Your task to perform on an android device: Open calendar and show me the fourth week of next month Image 0: 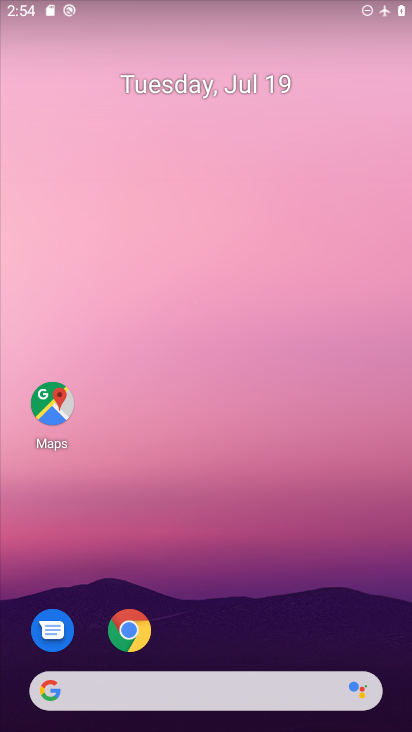
Step 0: drag from (386, 651) to (340, 235)
Your task to perform on an android device: Open calendar and show me the fourth week of next month Image 1: 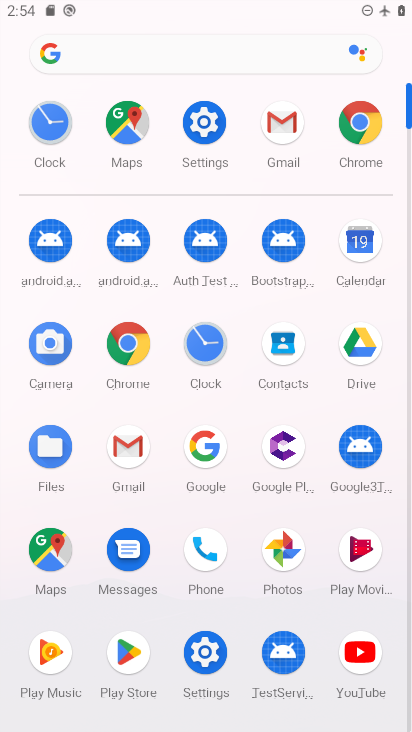
Step 1: click (357, 243)
Your task to perform on an android device: Open calendar and show me the fourth week of next month Image 2: 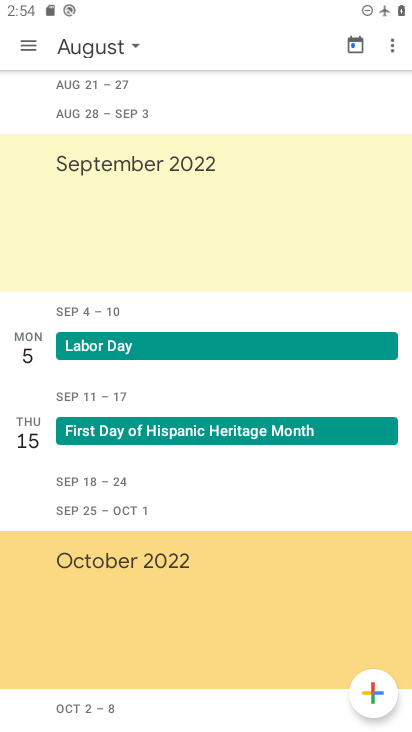
Step 2: click (22, 39)
Your task to perform on an android device: Open calendar and show me the fourth week of next month Image 3: 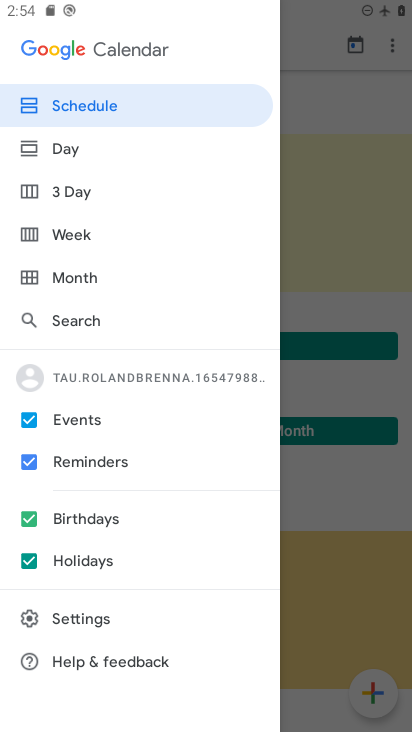
Step 3: click (69, 229)
Your task to perform on an android device: Open calendar and show me the fourth week of next month Image 4: 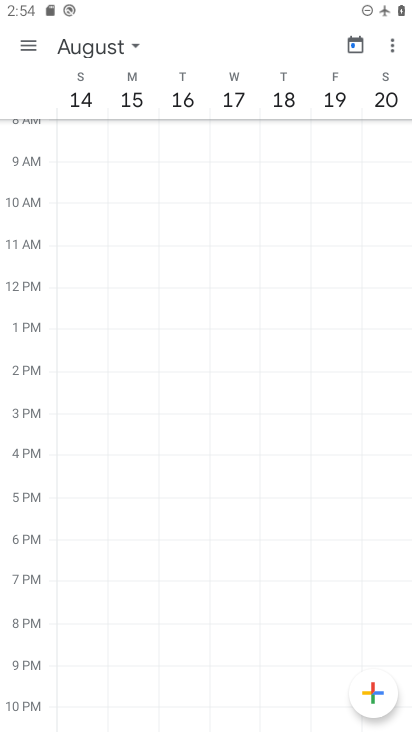
Step 4: click (134, 43)
Your task to perform on an android device: Open calendar and show me the fourth week of next month Image 5: 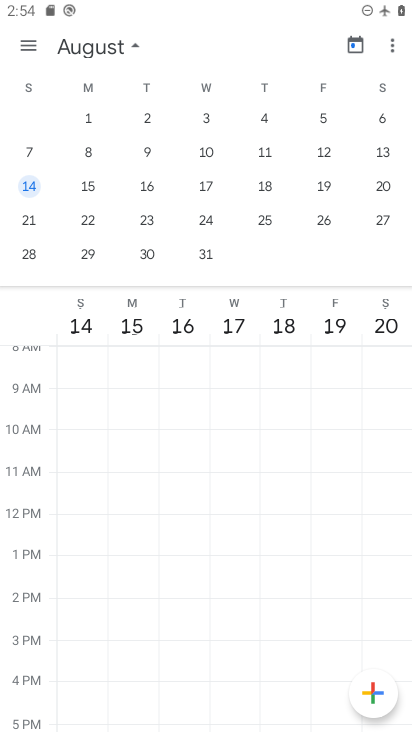
Step 5: click (27, 255)
Your task to perform on an android device: Open calendar and show me the fourth week of next month Image 6: 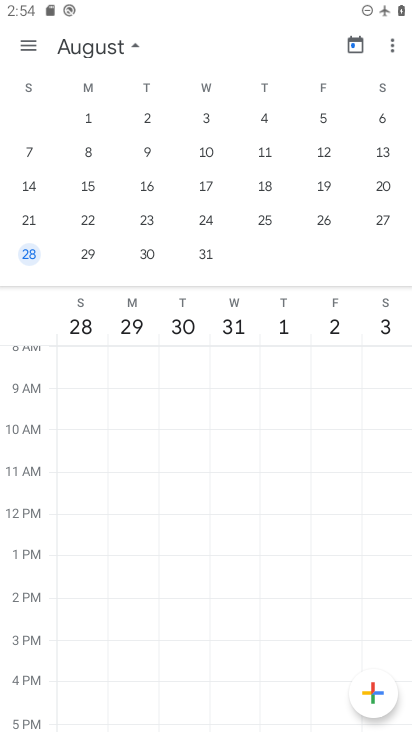
Step 6: task complete